Your task to perform on an android device: open app "Google Chrome" Image 0: 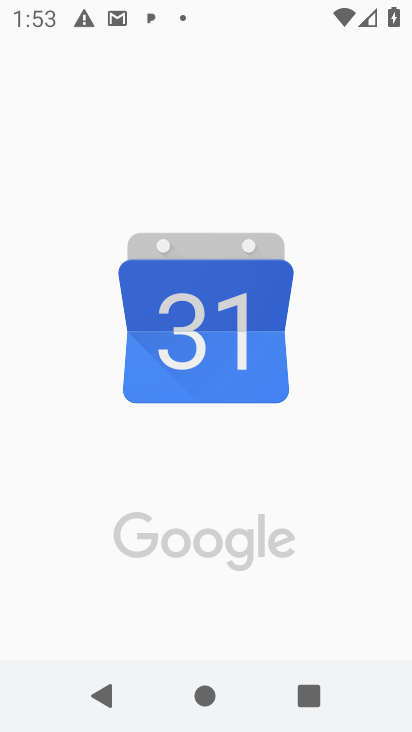
Step 0: press home button
Your task to perform on an android device: open app "Google Chrome" Image 1: 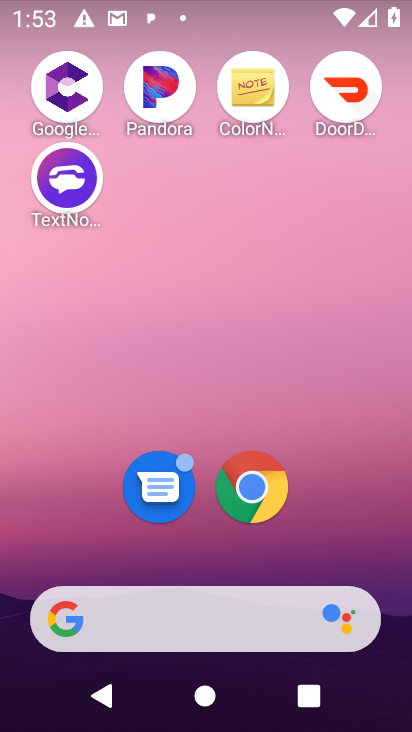
Step 1: click (238, 486)
Your task to perform on an android device: open app "Google Chrome" Image 2: 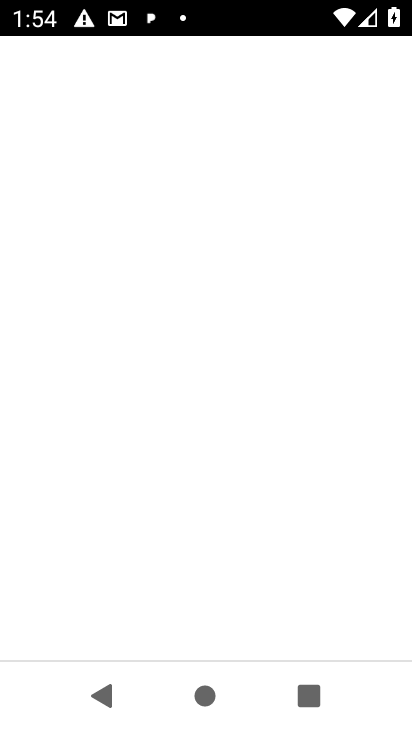
Step 2: task complete